Your task to perform on an android device: Go to ESPN.com Image 0: 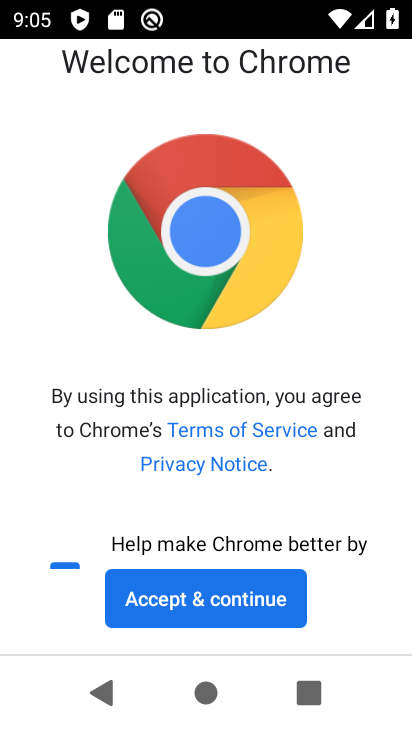
Step 0: click (180, 598)
Your task to perform on an android device: Go to ESPN.com Image 1: 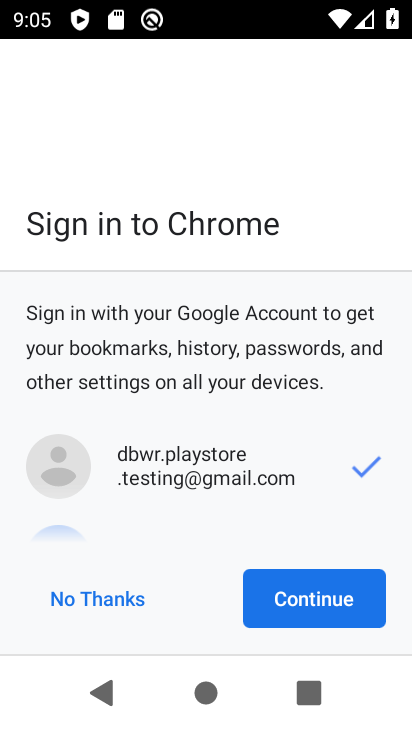
Step 1: click (314, 584)
Your task to perform on an android device: Go to ESPN.com Image 2: 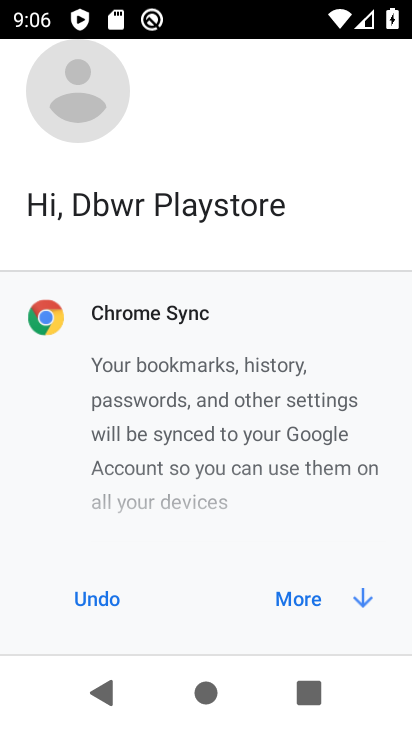
Step 2: click (305, 595)
Your task to perform on an android device: Go to ESPN.com Image 3: 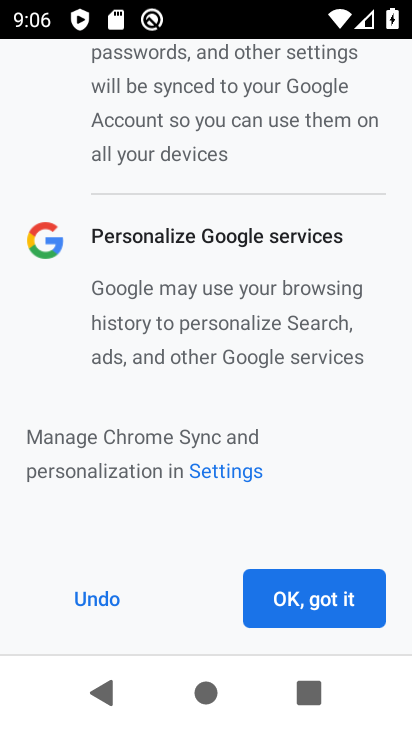
Step 3: click (282, 593)
Your task to perform on an android device: Go to ESPN.com Image 4: 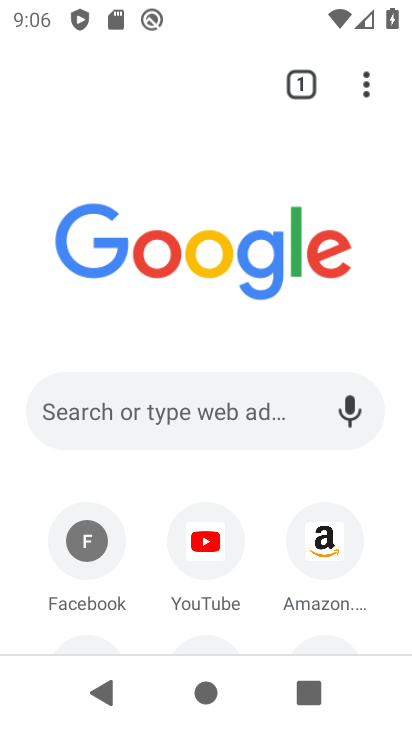
Step 4: click (188, 422)
Your task to perform on an android device: Go to ESPN.com Image 5: 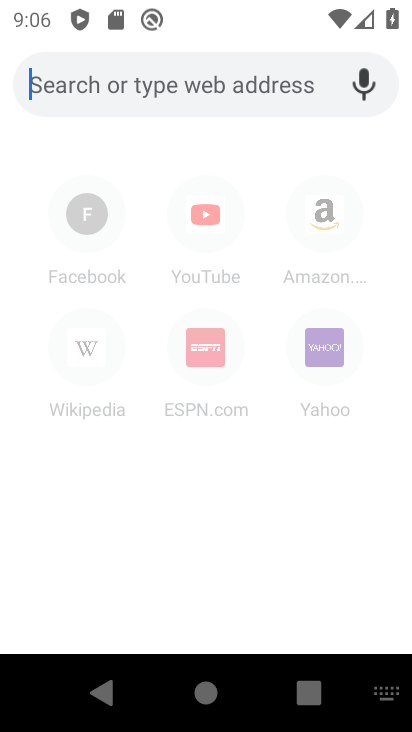
Step 5: type "ESPN.com"
Your task to perform on an android device: Go to ESPN.com Image 6: 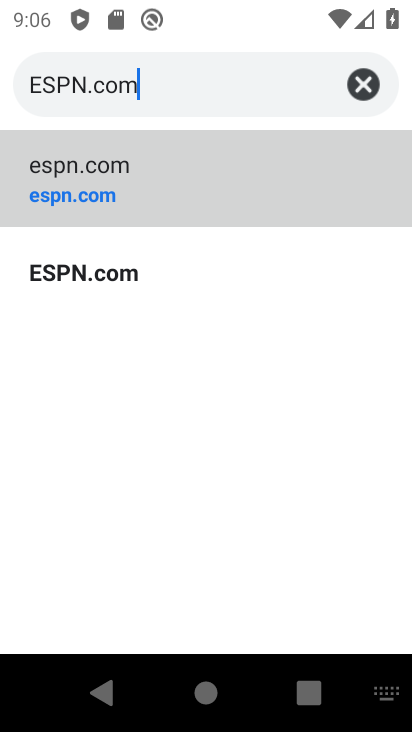
Step 6: click (133, 192)
Your task to perform on an android device: Go to ESPN.com Image 7: 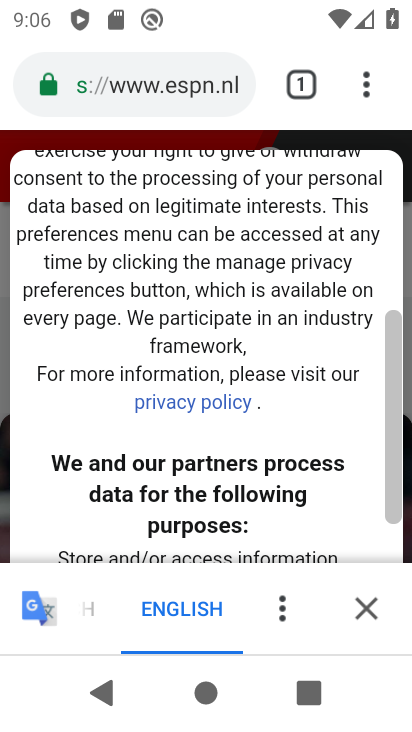
Step 7: task complete